Your task to perform on an android device: Go to accessibility settings Image 0: 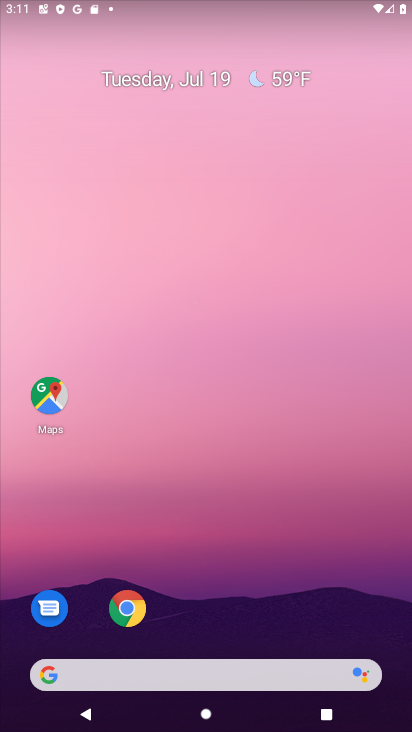
Step 0: drag from (333, 623) to (303, 108)
Your task to perform on an android device: Go to accessibility settings Image 1: 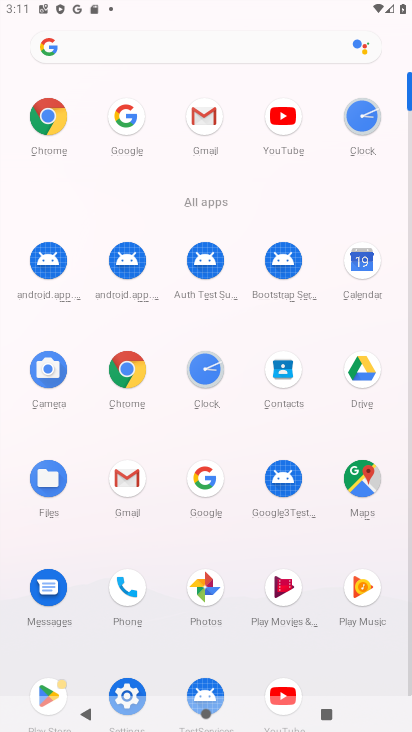
Step 1: click (126, 688)
Your task to perform on an android device: Go to accessibility settings Image 2: 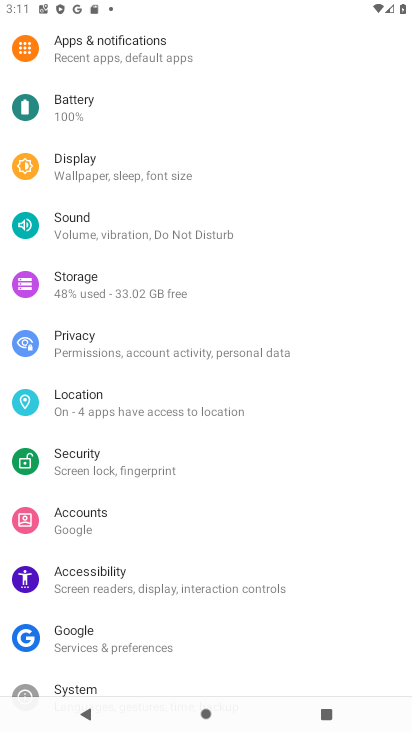
Step 2: click (155, 582)
Your task to perform on an android device: Go to accessibility settings Image 3: 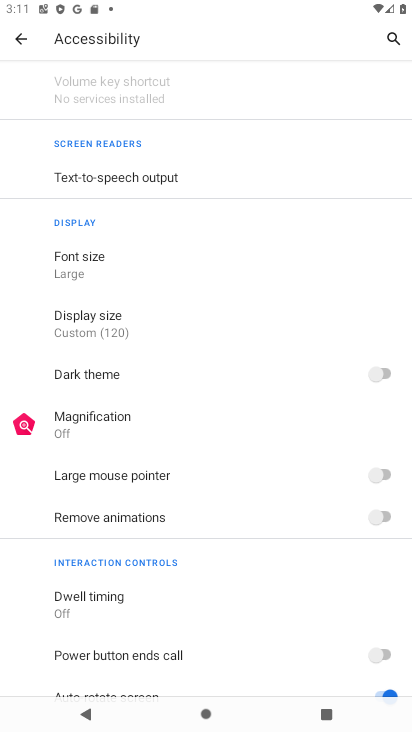
Step 3: task complete